Your task to perform on an android device: manage bookmarks in the chrome app Image 0: 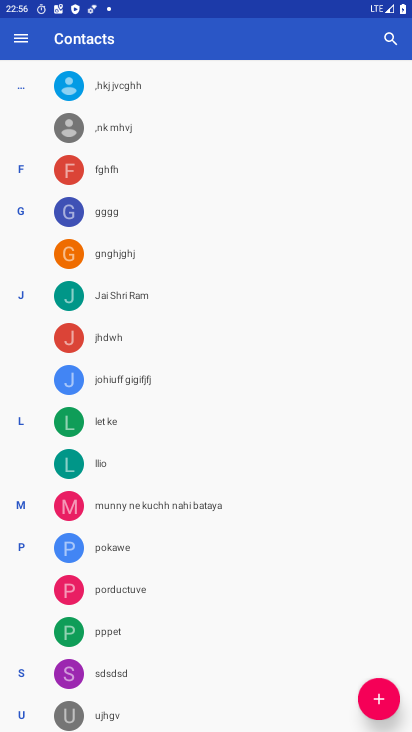
Step 0: press home button
Your task to perform on an android device: manage bookmarks in the chrome app Image 1: 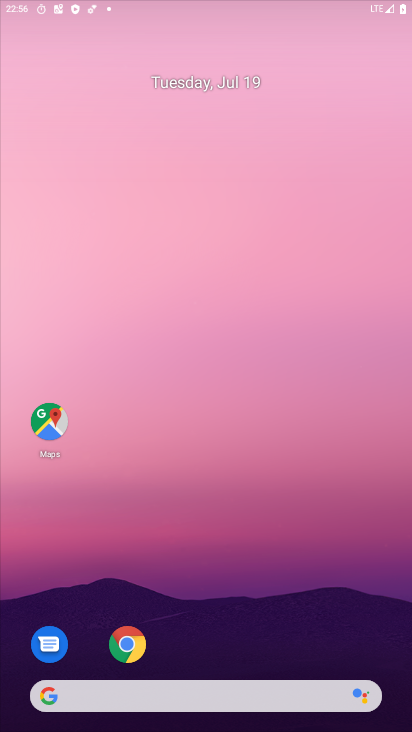
Step 1: drag from (206, 706) to (191, 76)
Your task to perform on an android device: manage bookmarks in the chrome app Image 2: 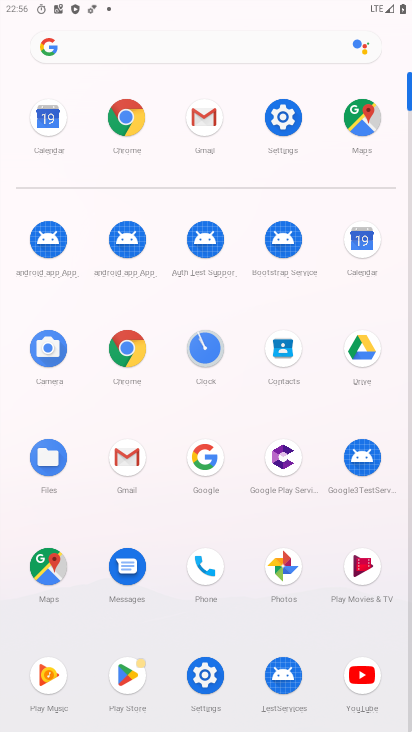
Step 2: click (159, 351)
Your task to perform on an android device: manage bookmarks in the chrome app Image 3: 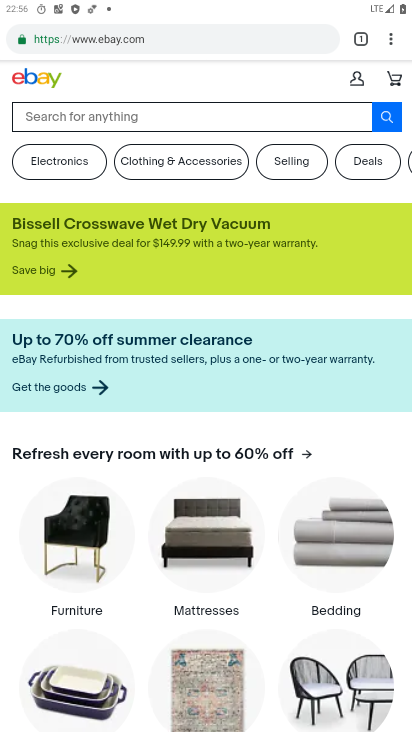
Step 3: drag from (392, 42) to (268, 150)
Your task to perform on an android device: manage bookmarks in the chrome app Image 4: 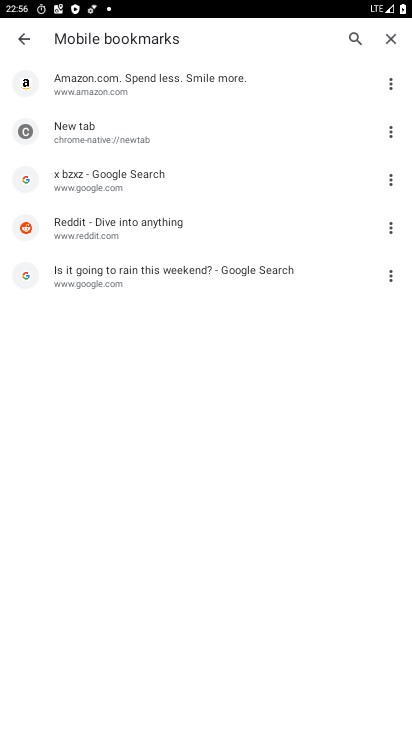
Step 4: click (391, 280)
Your task to perform on an android device: manage bookmarks in the chrome app Image 5: 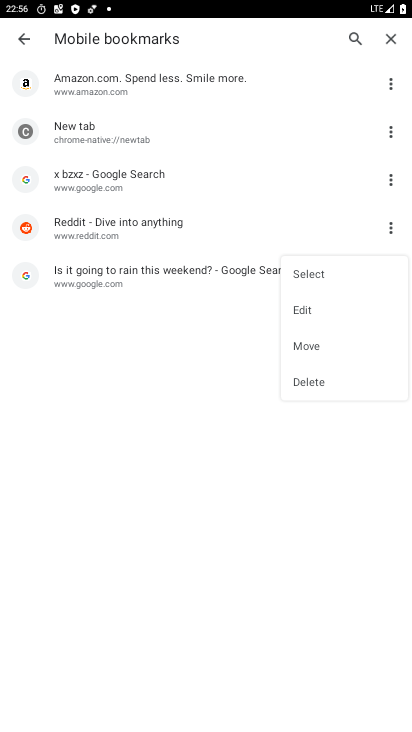
Step 5: click (299, 386)
Your task to perform on an android device: manage bookmarks in the chrome app Image 6: 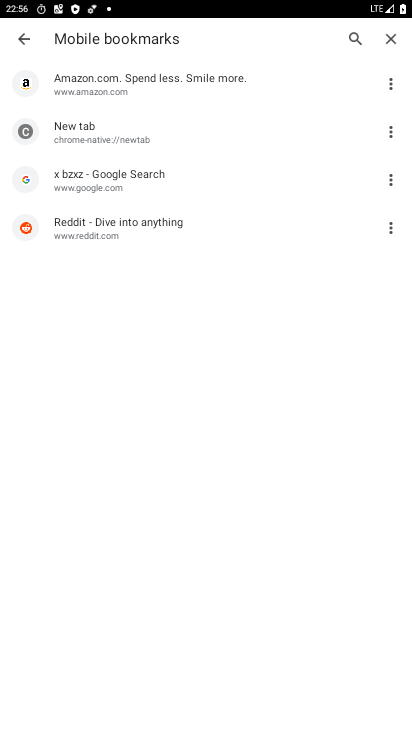
Step 6: task complete